Your task to perform on an android device: empty trash in the gmail app Image 0: 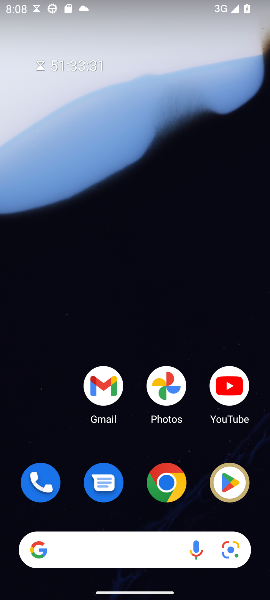
Step 0: drag from (167, 494) to (154, 105)
Your task to perform on an android device: empty trash in the gmail app Image 1: 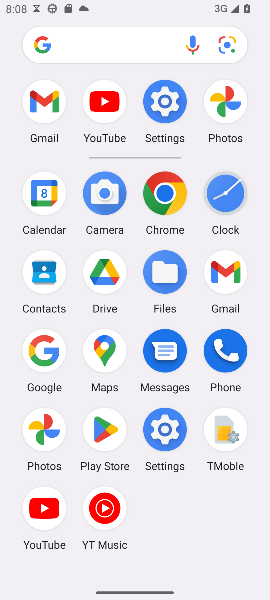
Step 1: click (26, 110)
Your task to perform on an android device: empty trash in the gmail app Image 2: 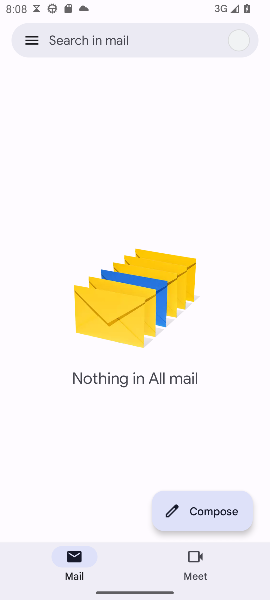
Step 2: click (25, 42)
Your task to perform on an android device: empty trash in the gmail app Image 3: 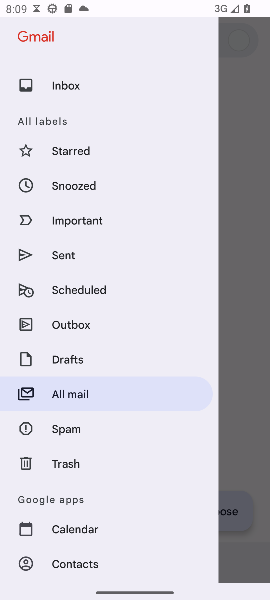
Step 3: click (69, 464)
Your task to perform on an android device: empty trash in the gmail app Image 4: 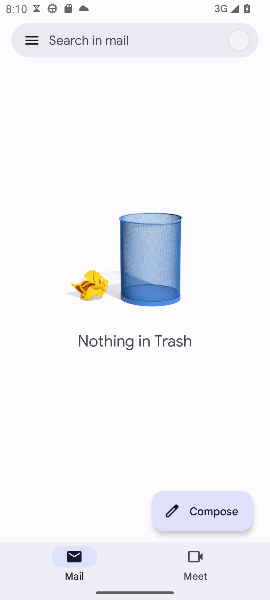
Step 4: task complete